Your task to perform on an android device: Do I have any events tomorrow? Image 0: 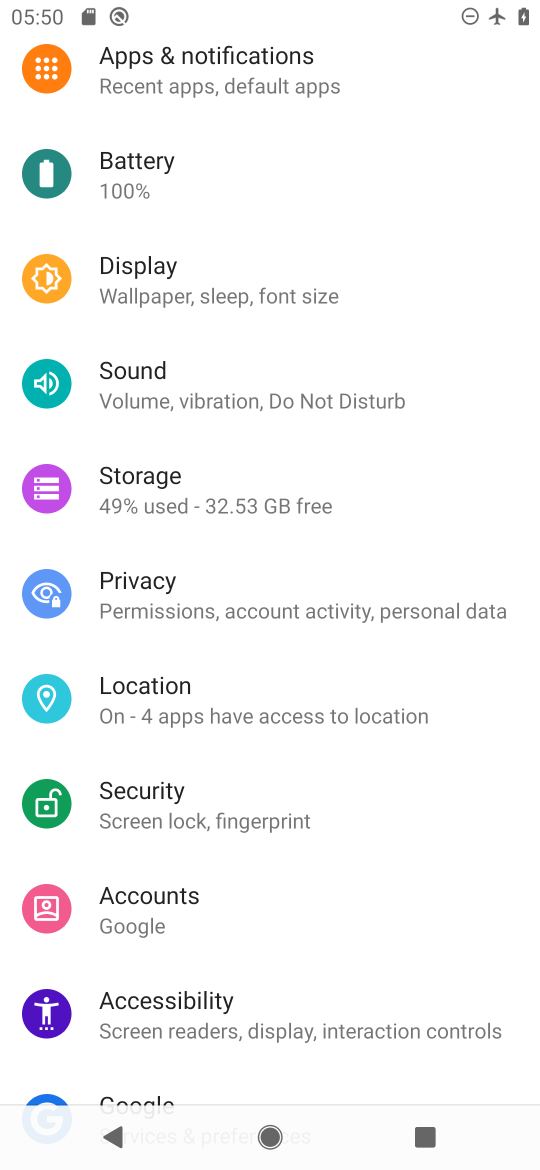
Step 0: press back button
Your task to perform on an android device: Do I have any events tomorrow? Image 1: 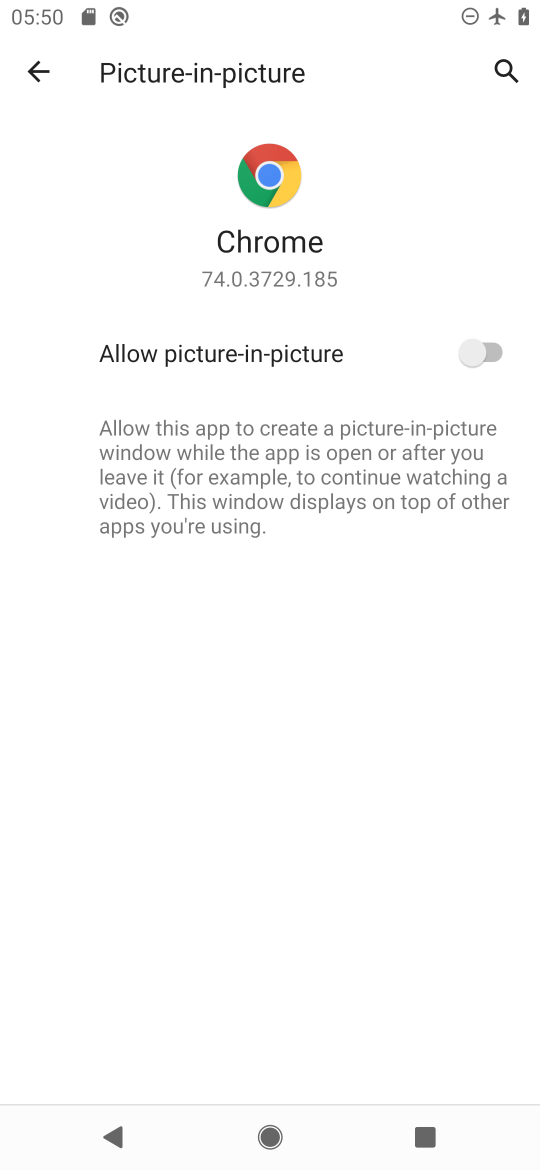
Step 1: press home button
Your task to perform on an android device: Do I have any events tomorrow? Image 2: 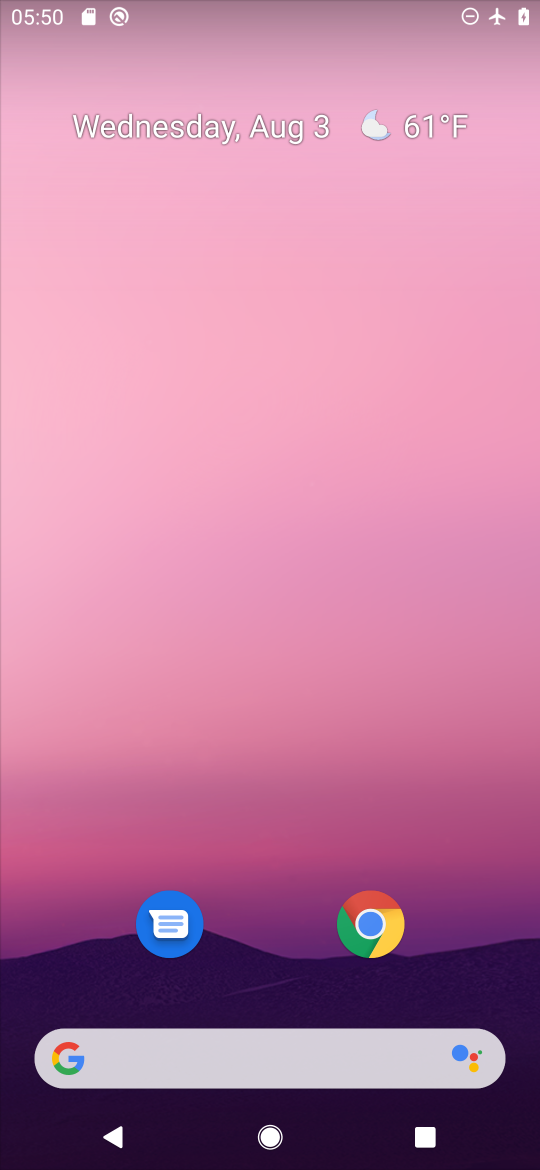
Step 2: drag from (297, 923) to (257, 387)
Your task to perform on an android device: Do I have any events tomorrow? Image 3: 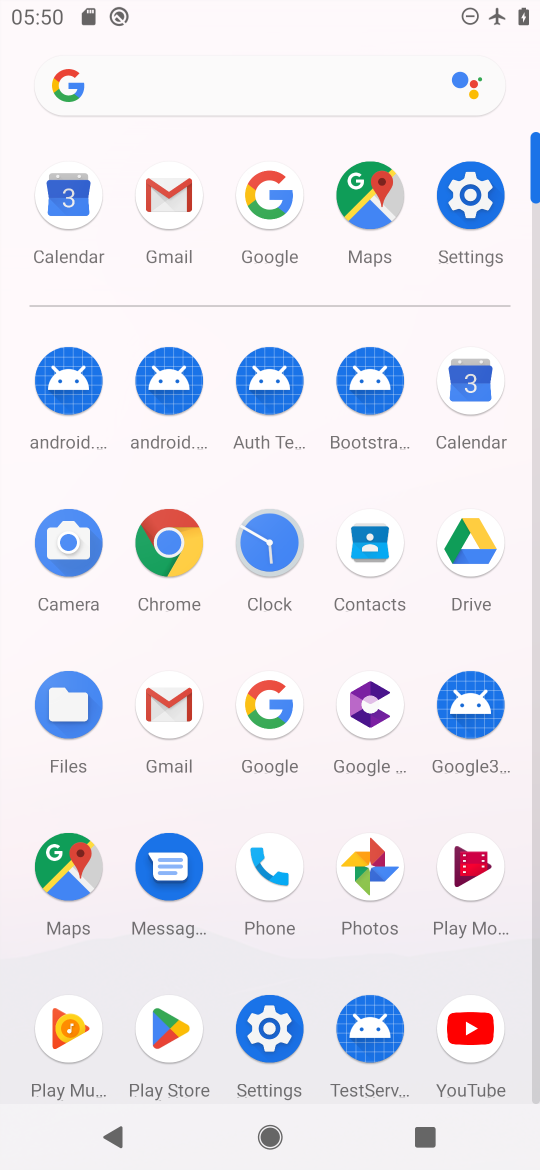
Step 3: click (448, 416)
Your task to perform on an android device: Do I have any events tomorrow? Image 4: 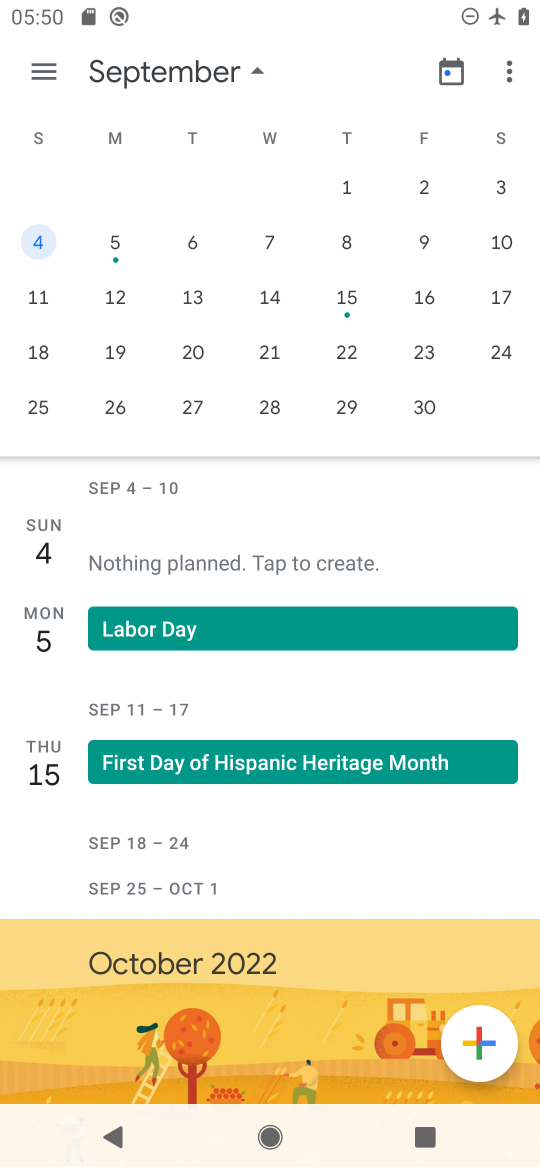
Step 4: drag from (71, 266) to (422, 270)
Your task to perform on an android device: Do I have any events tomorrow? Image 5: 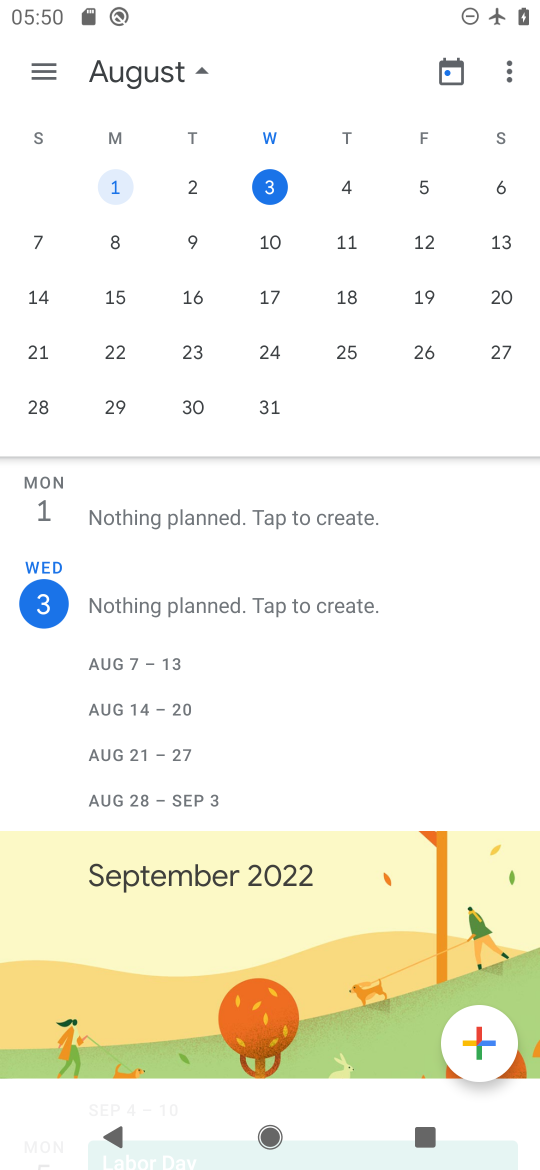
Step 5: click (358, 184)
Your task to perform on an android device: Do I have any events tomorrow? Image 6: 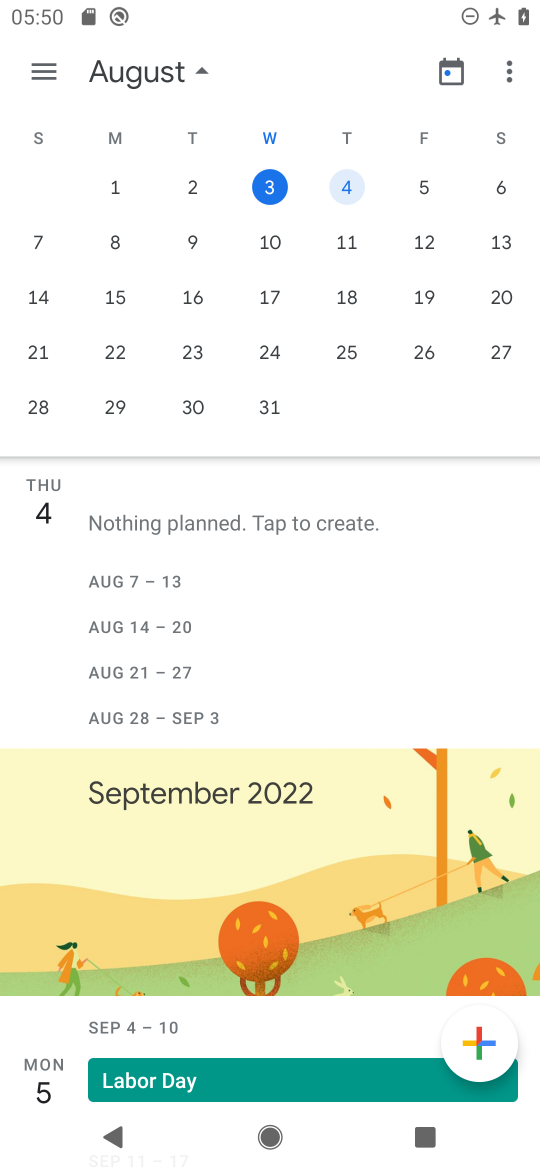
Step 6: task complete